Your task to perform on an android device: turn on data saver in the chrome app Image 0: 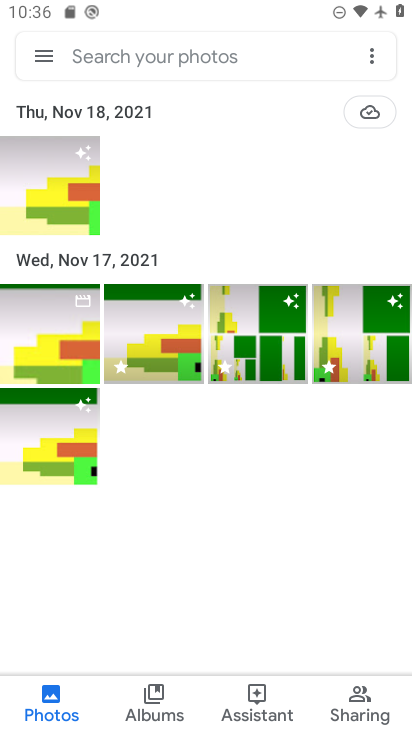
Step 0: press home button
Your task to perform on an android device: turn on data saver in the chrome app Image 1: 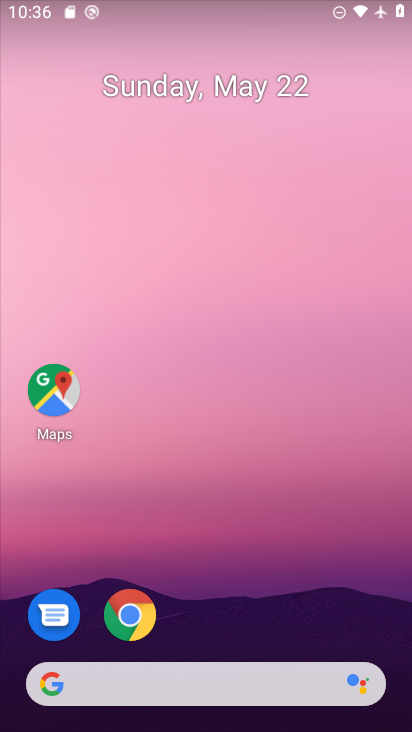
Step 1: click (132, 604)
Your task to perform on an android device: turn on data saver in the chrome app Image 2: 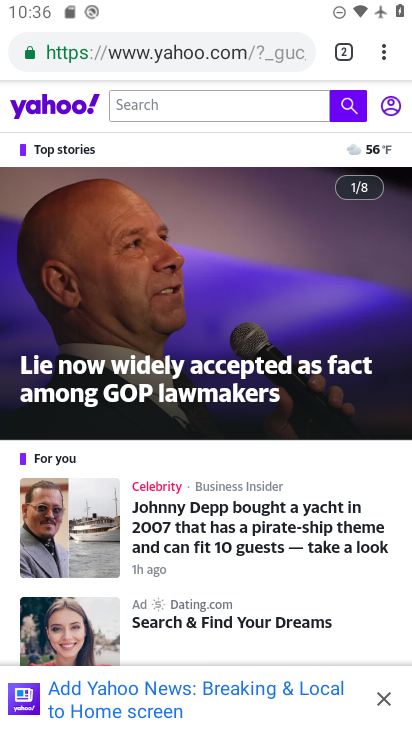
Step 2: drag from (382, 46) to (300, 593)
Your task to perform on an android device: turn on data saver in the chrome app Image 3: 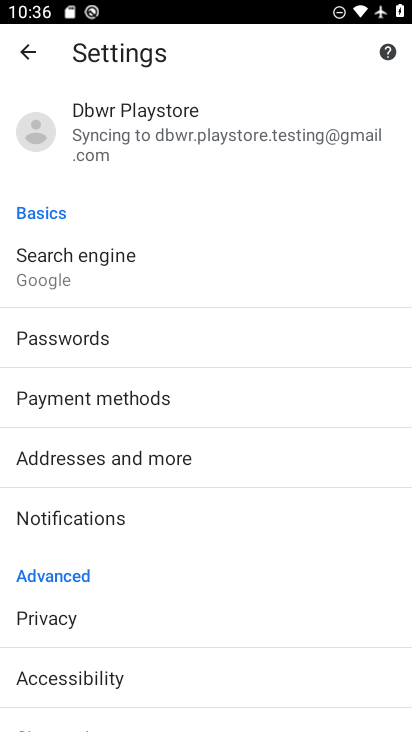
Step 3: drag from (200, 605) to (208, 85)
Your task to perform on an android device: turn on data saver in the chrome app Image 4: 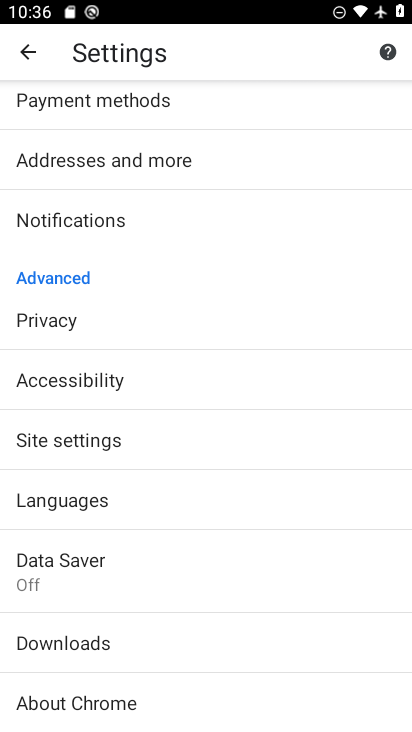
Step 4: click (97, 434)
Your task to perform on an android device: turn on data saver in the chrome app Image 5: 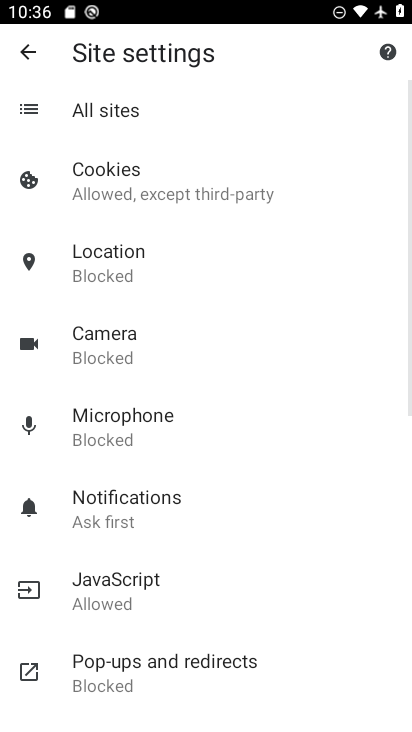
Step 5: click (19, 43)
Your task to perform on an android device: turn on data saver in the chrome app Image 6: 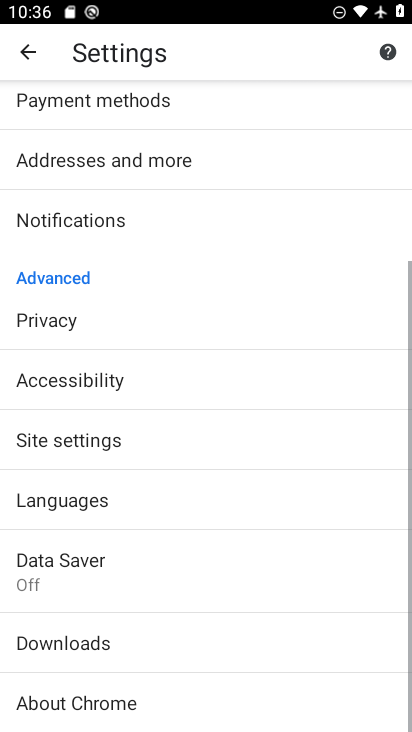
Step 6: click (102, 588)
Your task to perform on an android device: turn on data saver in the chrome app Image 7: 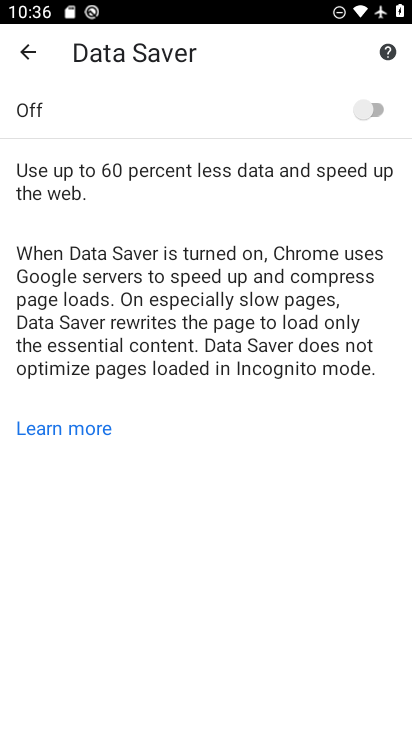
Step 7: click (376, 97)
Your task to perform on an android device: turn on data saver in the chrome app Image 8: 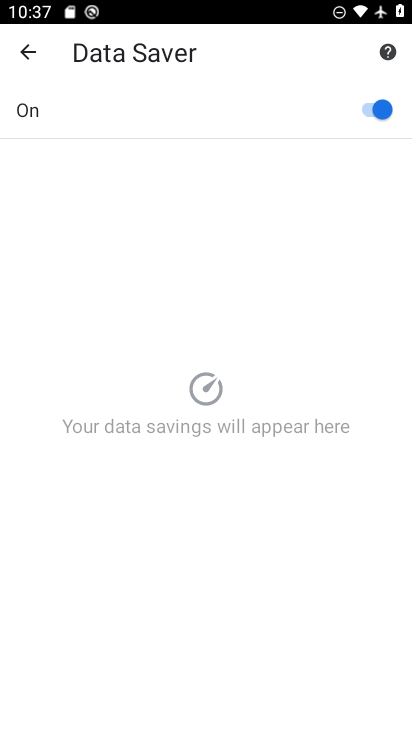
Step 8: task complete